Your task to perform on an android device: open a new tab in the chrome app Image 0: 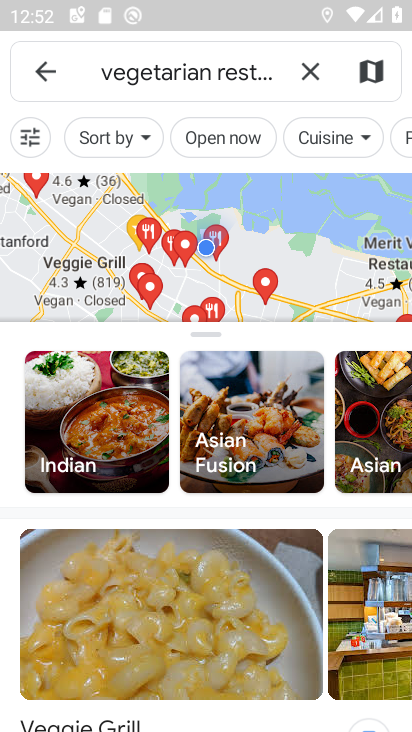
Step 0: press home button
Your task to perform on an android device: open a new tab in the chrome app Image 1: 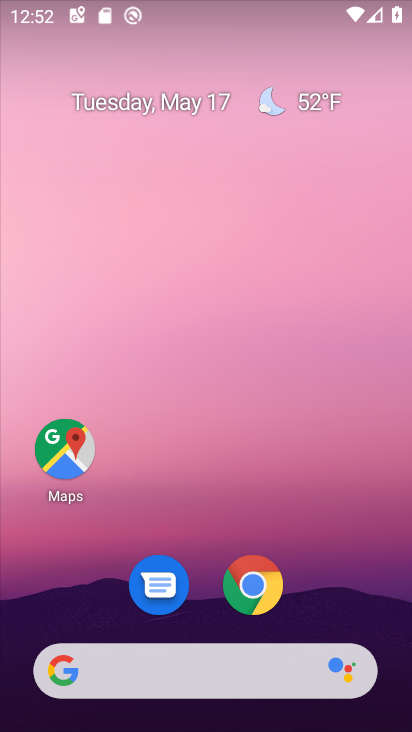
Step 1: click (250, 589)
Your task to perform on an android device: open a new tab in the chrome app Image 2: 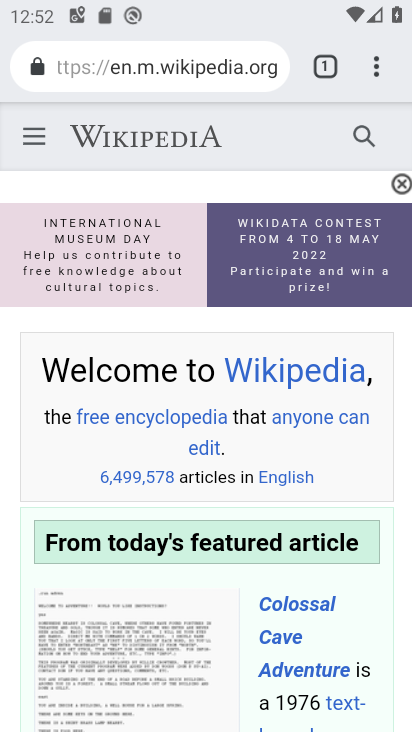
Step 2: click (371, 65)
Your task to perform on an android device: open a new tab in the chrome app Image 3: 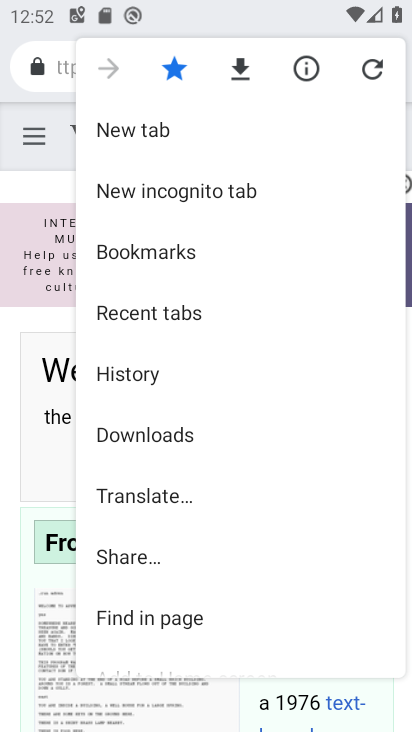
Step 3: click (265, 136)
Your task to perform on an android device: open a new tab in the chrome app Image 4: 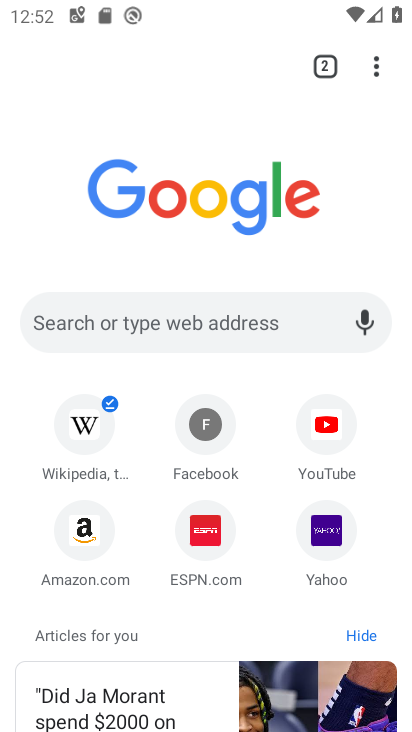
Step 4: task complete